Your task to perform on an android device: turn off sleep mode Image 0: 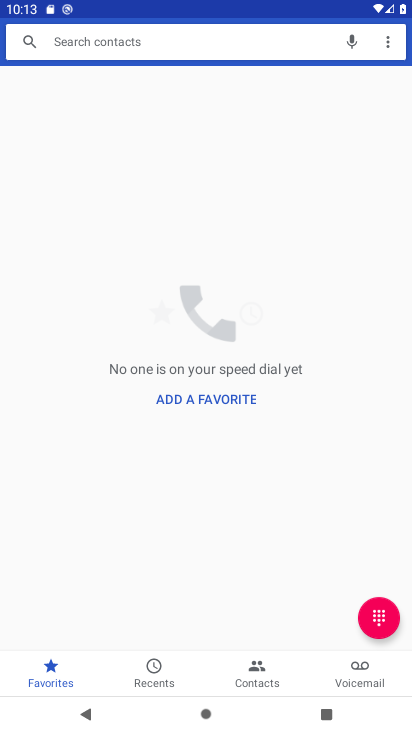
Step 0: press home button
Your task to perform on an android device: turn off sleep mode Image 1: 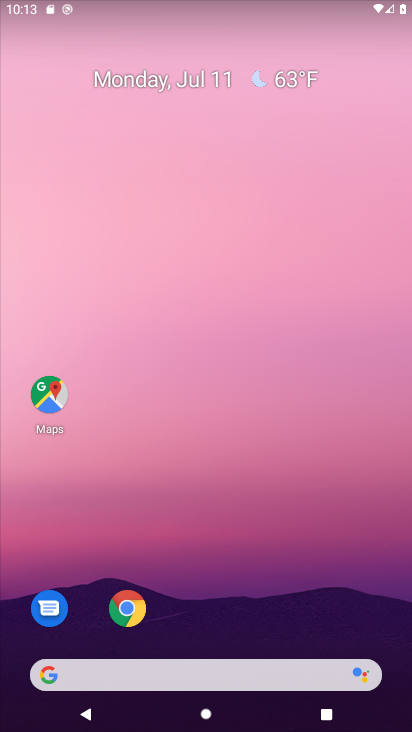
Step 1: drag from (234, 522) to (329, 0)
Your task to perform on an android device: turn off sleep mode Image 2: 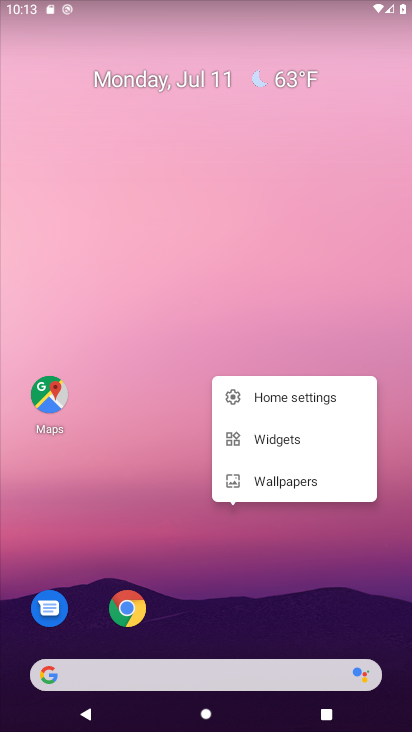
Step 2: click (250, 284)
Your task to perform on an android device: turn off sleep mode Image 3: 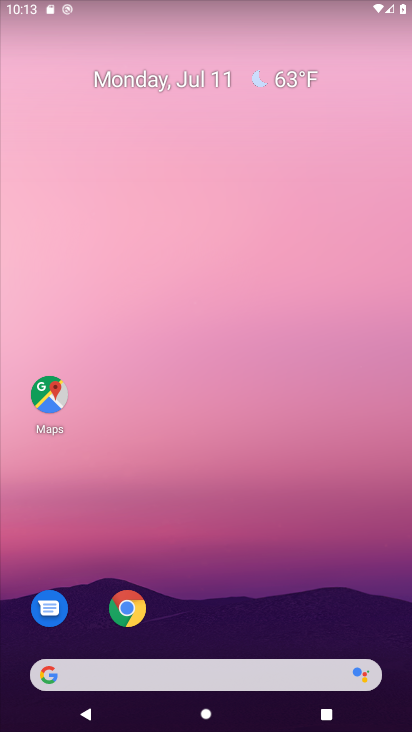
Step 3: drag from (261, 608) to (274, 127)
Your task to perform on an android device: turn off sleep mode Image 4: 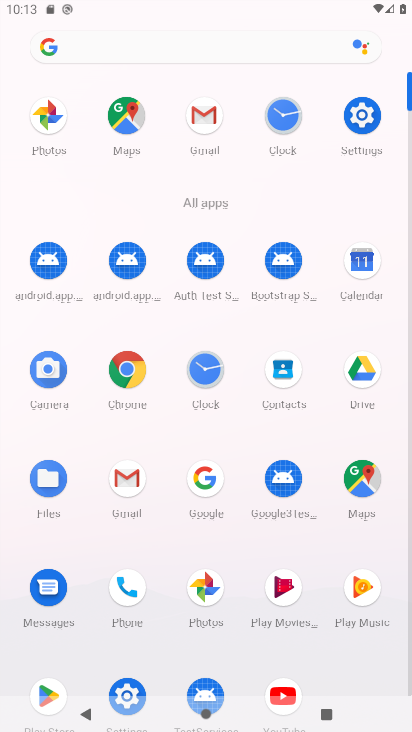
Step 4: click (360, 131)
Your task to perform on an android device: turn off sleep mode Image 5: 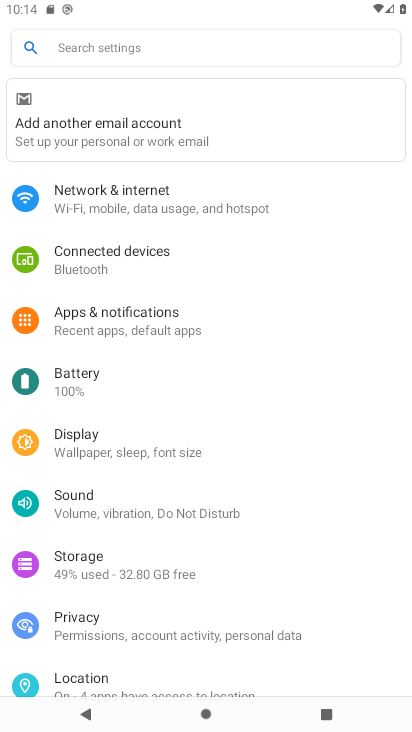
Step 5: click (185, 452)
Your task to perform on an android device: turn off sleep mode Image 6: 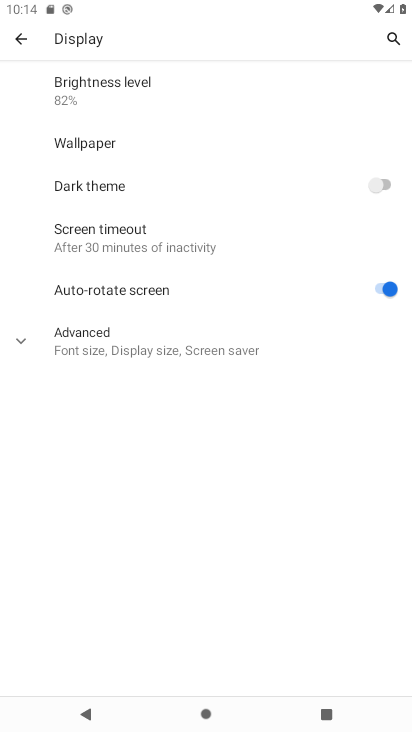
Step 6: click (132, 342)
Your task to perform on an android device: turn off sleep mode Image 7: 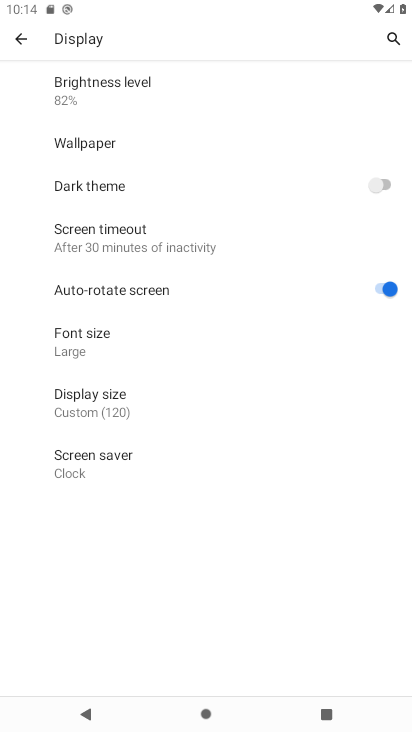
Step 7: task complete